Your task to perform on an android device: check out phone information Image 0: 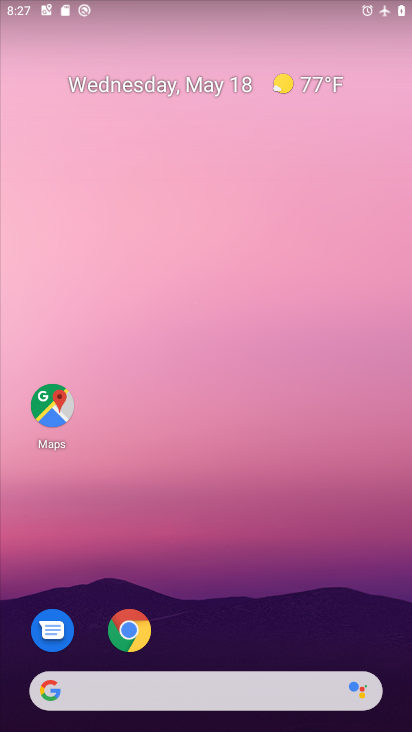
Step 0: drag from (232, 619) to (229, 183)
Your task to perform on an android device: check out phone information Image 1: 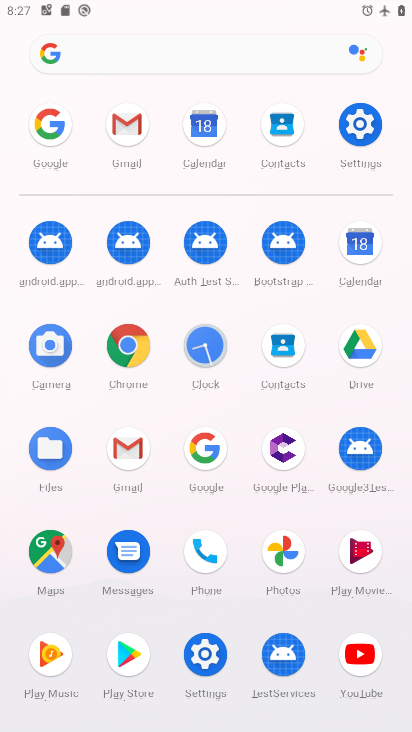
Step 1: click (221, 570)
Your task to perform on an android device: check out phone information Image 2: 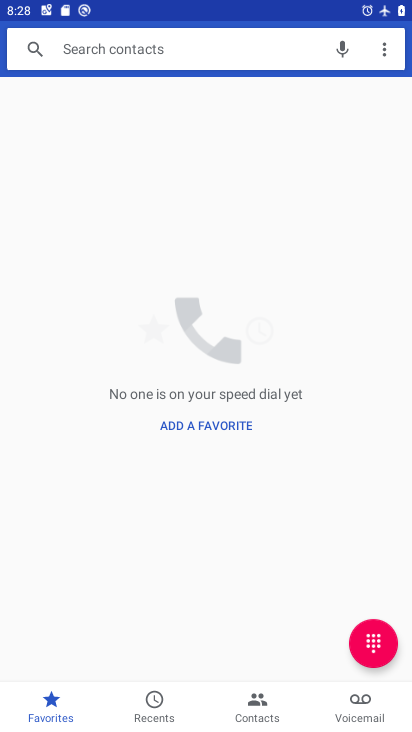
Step 2: click (385, 52)
Your task to perform on an android device: check out phone information Image 3: 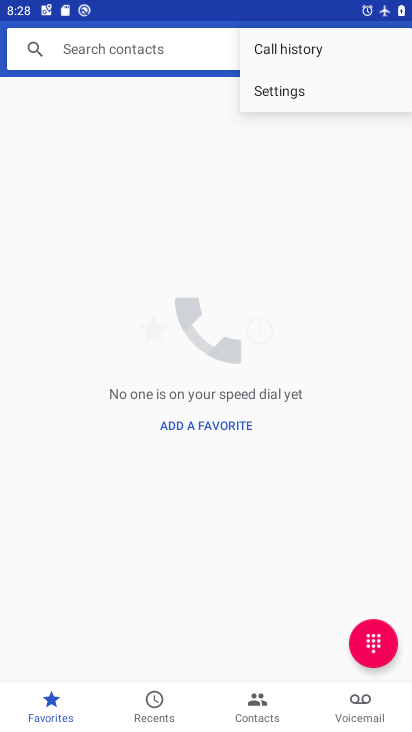
Step 3: click (333, 97)
Your task to perform on an android device: check out phone information Image 4: 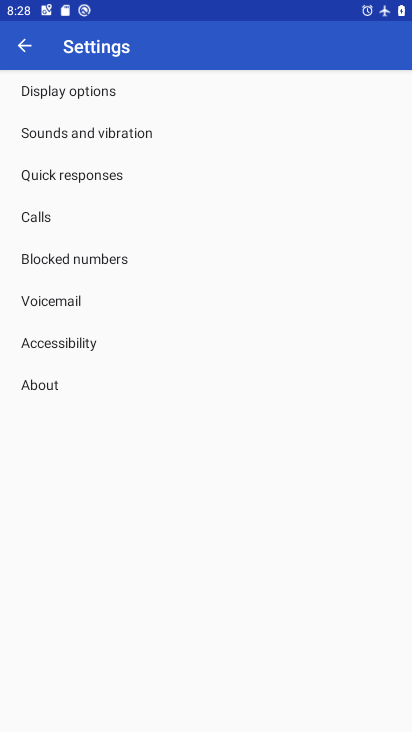
Step 4: click (62, 379)
Your task to perform on an android device: check out phone information Image 5: 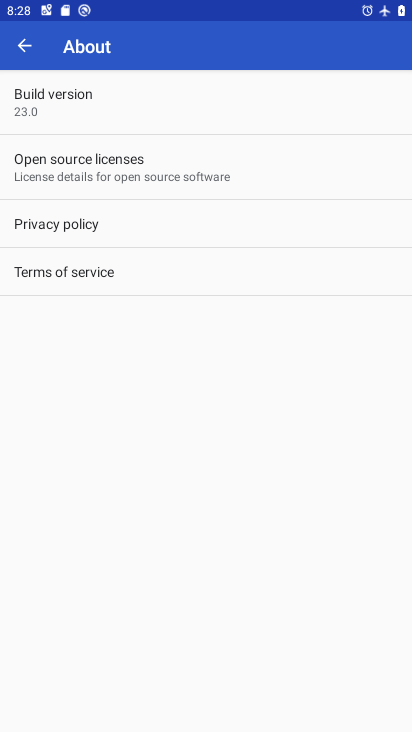
Step 5: task complete